Your task to perform on an android device: create a new album in the google photos Image 0: 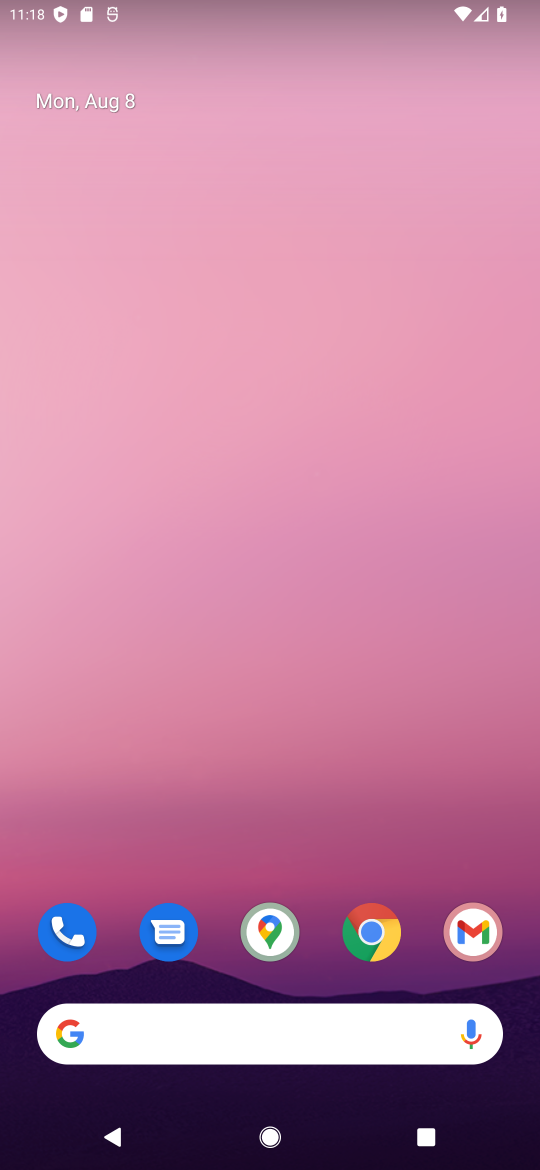
Step 0: drag from (252, 866) to (289, 74)
Your task to perform on an android device: create a new album in the google photos Image 1: 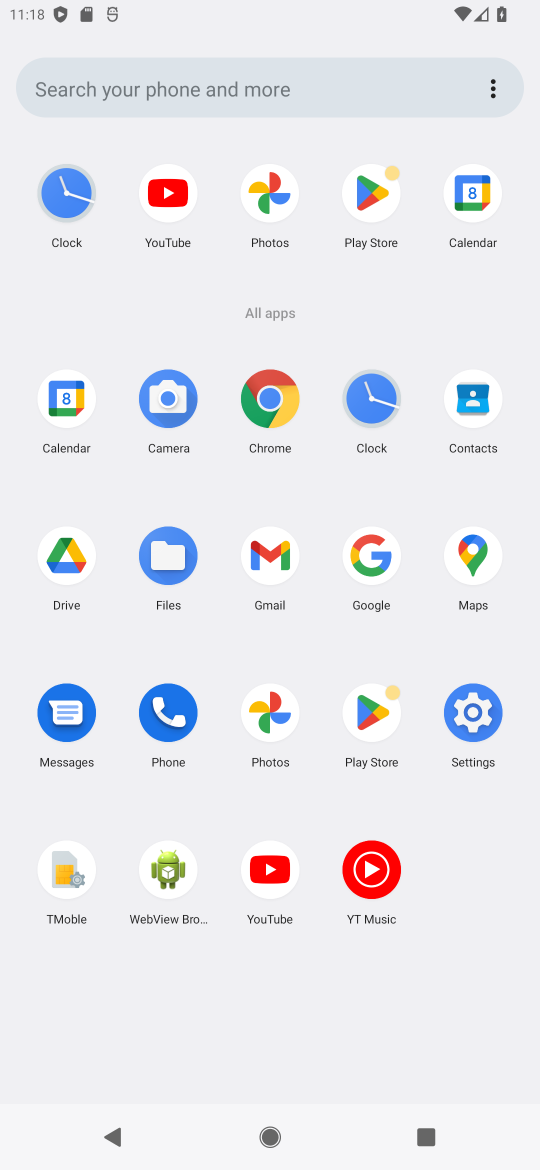
Step 1: click (299, 210)
Your task to perform on an android device: create a new album in the google photos Image 2: 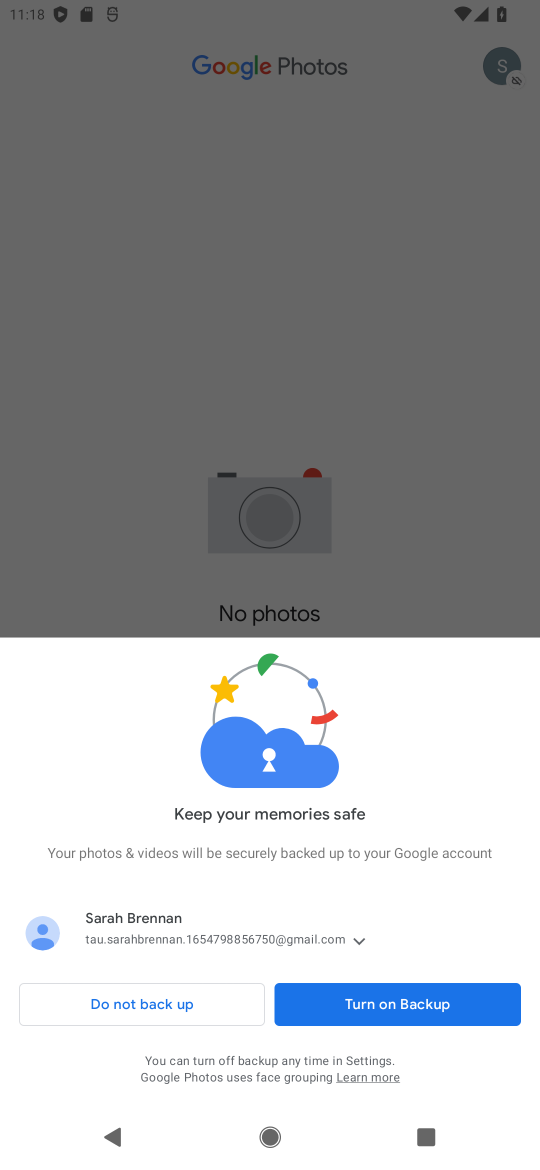
Step 2: click (325, 989)
Your task to perform on an android device: create a new album in the google photos Image 3: 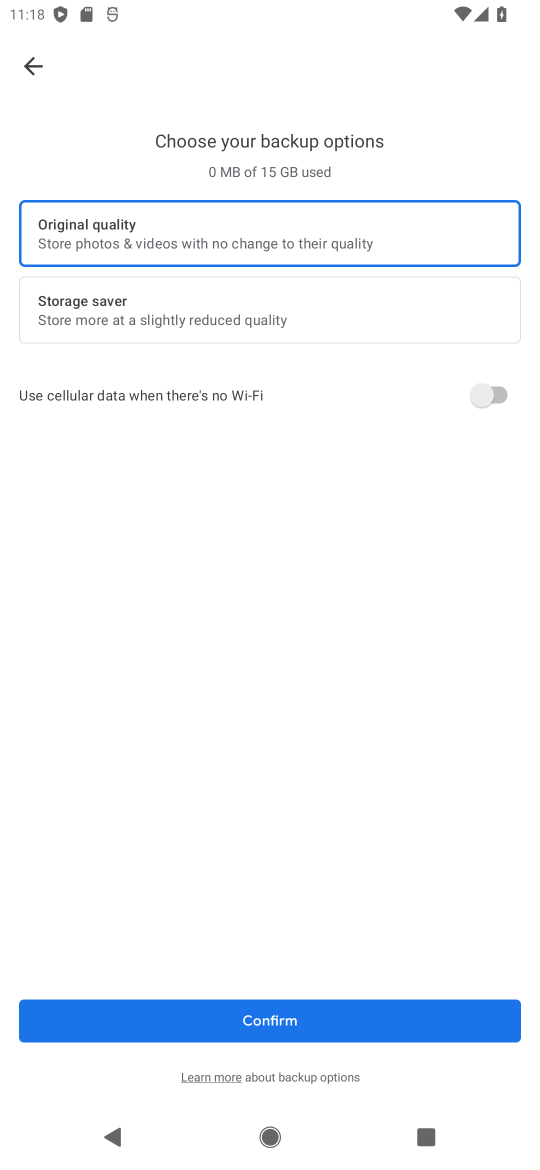
Step 3: click (318, 1038)
Your task to perform on an android device: create a new album in the google photos Image 4: 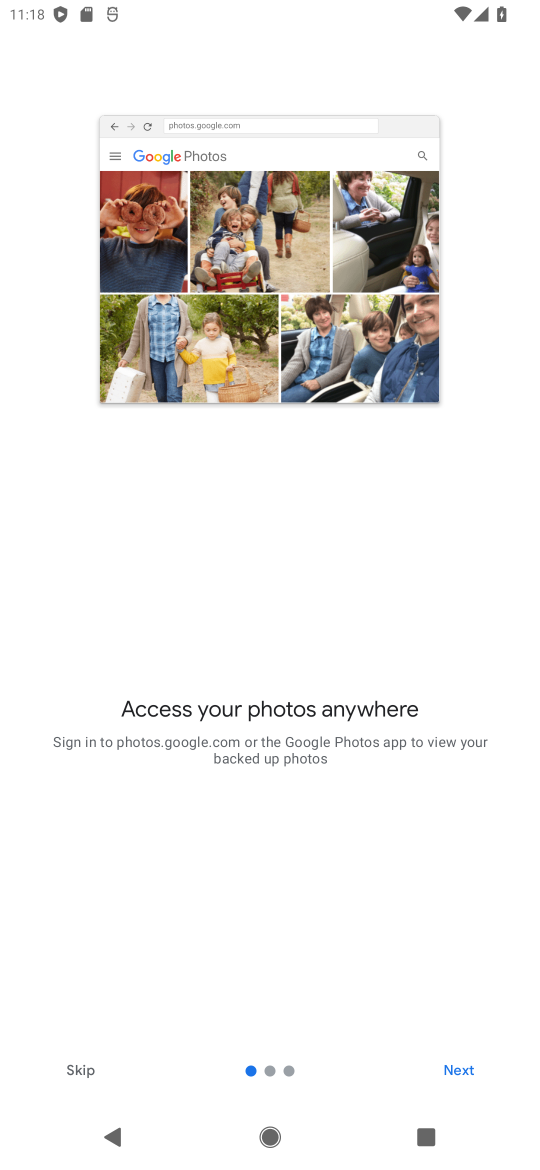
Step 4: click (478, 1082)
Your task to perform on an android device: create a new album in the google photos Image 5: 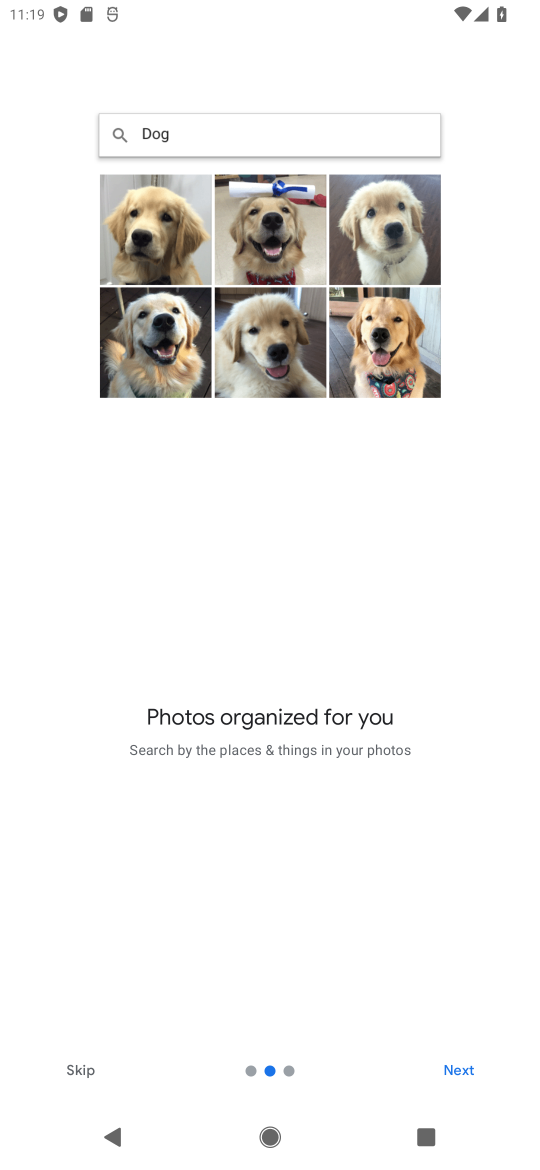
Step 5: click (478, 1082)
Your task to perform on an android device: create a new album in the google photos Image 6: 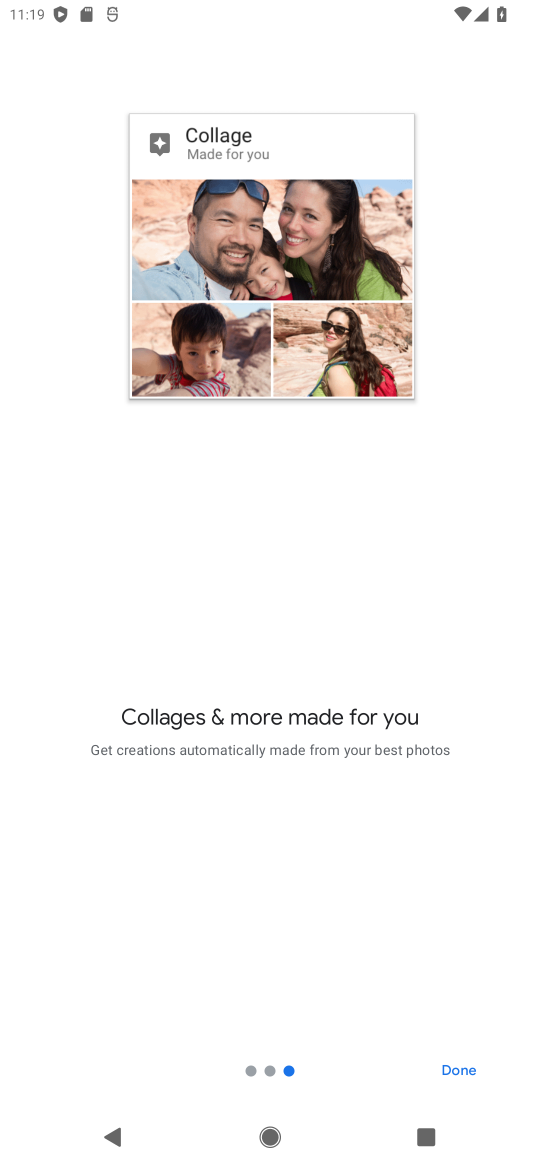
Step 6: click (478, 1082)
Your task to perform on an android device: create a new album in the google photos Image 7: 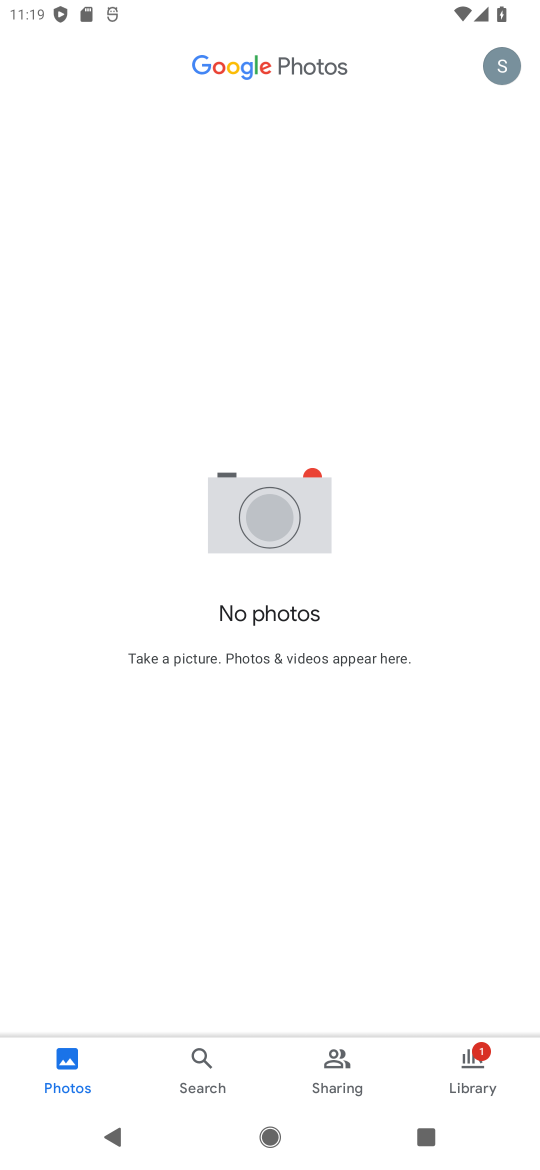
Step 7: task complete